Your task to perform on an android device: Open settings Image 0: 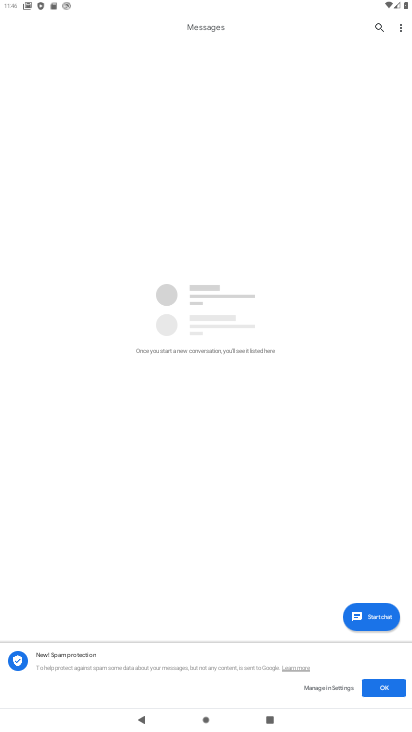
Step 0: press home button
Your task to perform on an android device: Open settings Image 1: 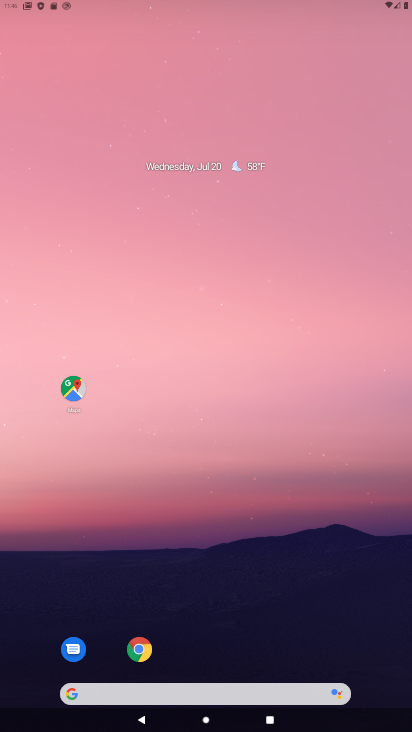
Step 1: drag from (220, 645) to (213, 101)
Your task to perform on an android device: Open settings Image 2: 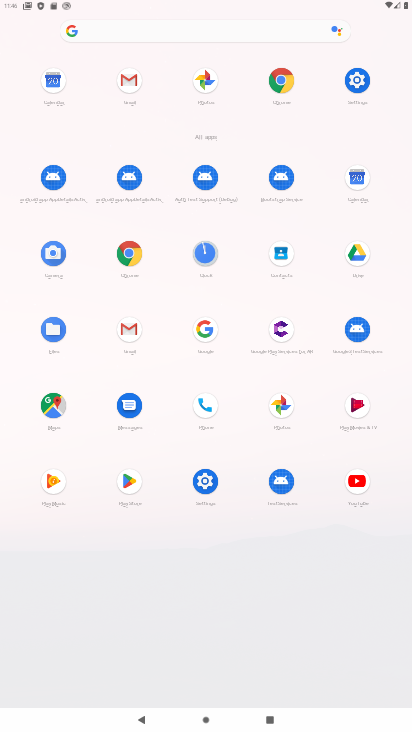
Step 2: click (354, 83)
Your task to perform on an android device: Open settings Image 3: 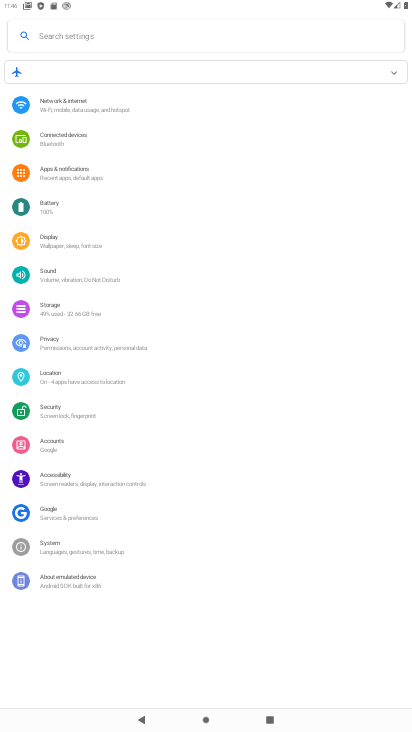
Step 3: task complete